Your task to perform on an android device: clear history in the chrome app Image 0: 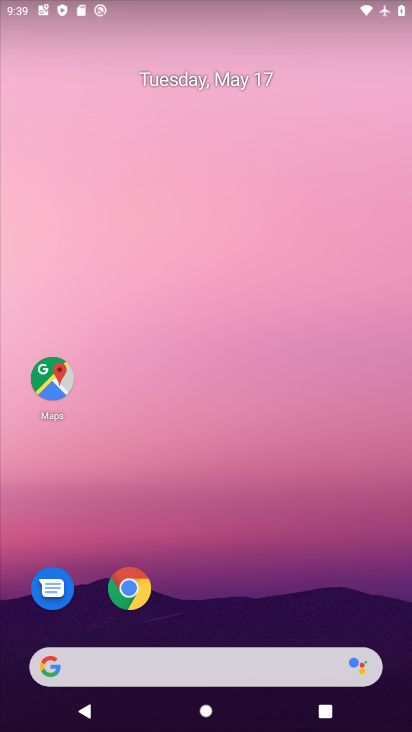
Step 0: click (172, 9)
Your task to perform on an android device: clear history in the chrome app Image 1: 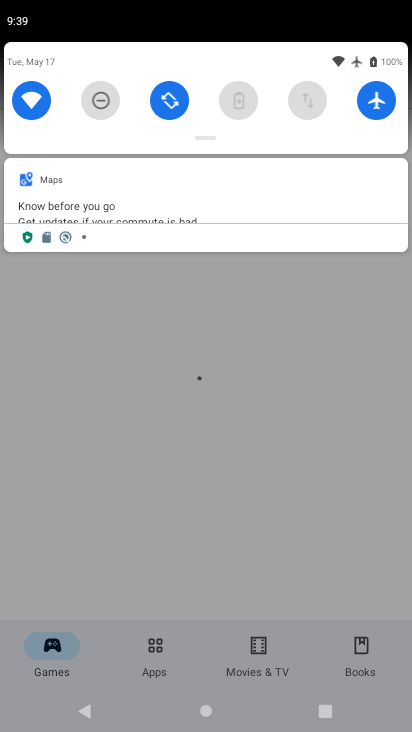
Step 1: press home button
Your task to perform on an android device: clear history in the chrome app Image 2: 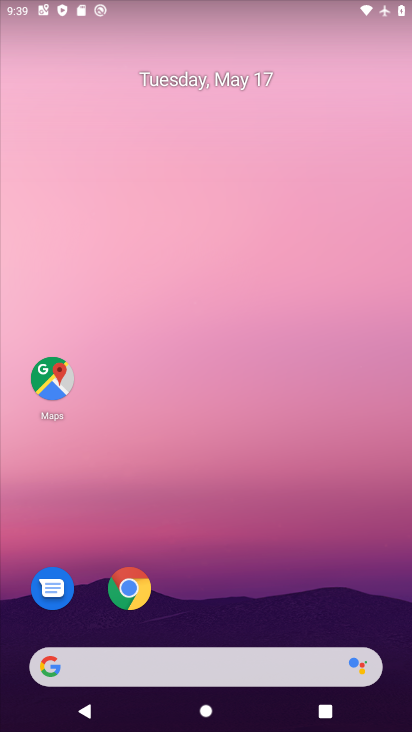
Step 2: click (132, 598)
Your task to perform on an android device: clear history in the chrome app Image 3: 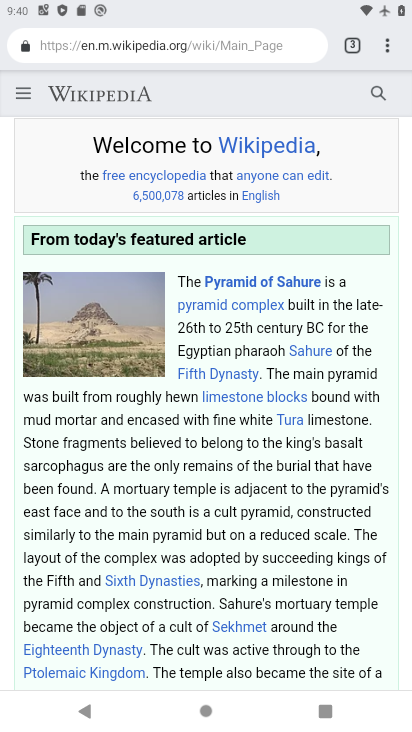
Step 3: click (392, 48)
Your task to perform on an android device: clear history in the chrome app Image 4: 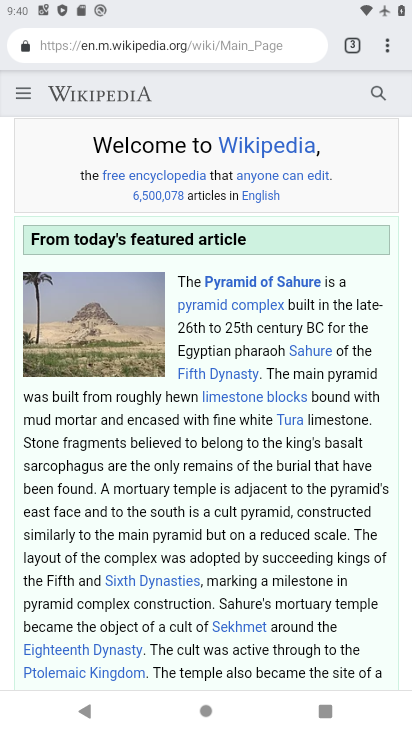
Step 4: drag from (391, 48) to (215, 259)
Your task to perform on an android device: clear history in the chrome app Image 5: 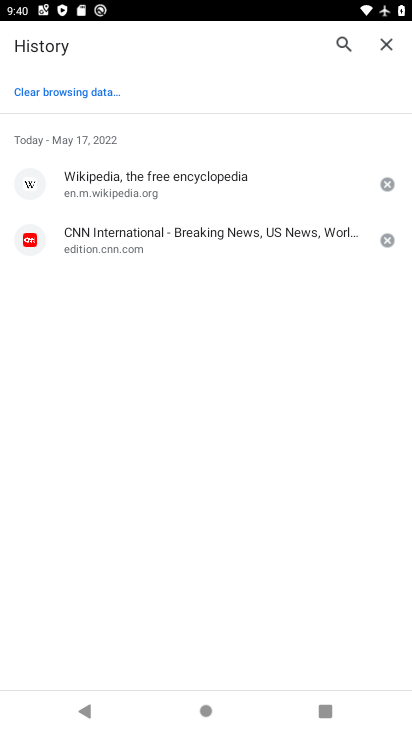
Step 5: click (49, 98)
Your task to perform on an android device: clear history in the chrome app Image 6: 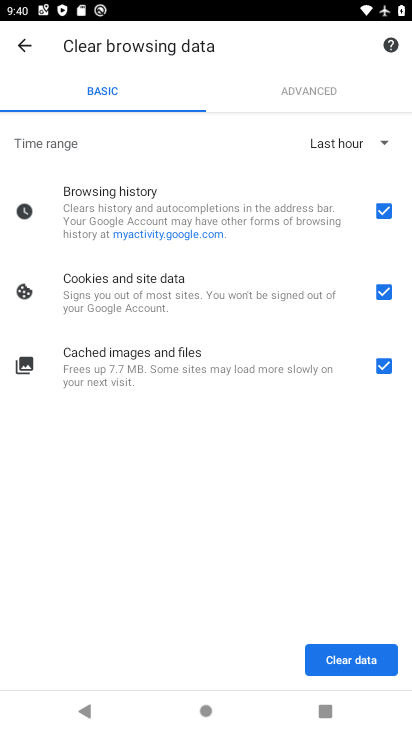
Step 6: click (351, 647)
Your task to perform on an android device: clear history in the chrome app Image 7: 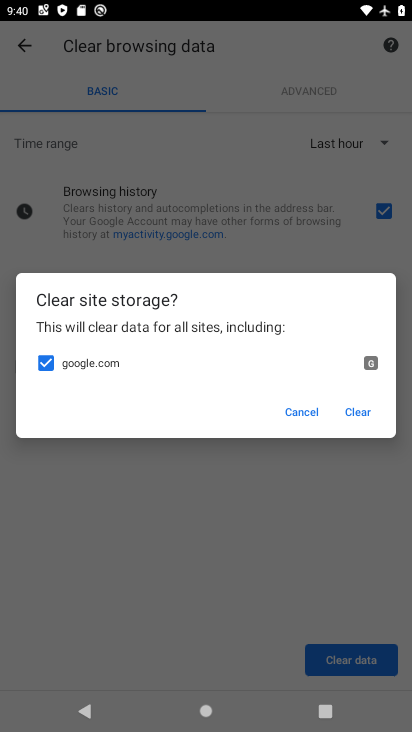
Step 7: click (361, 412)
Your task to perform on an android device: clear history in the chrome app Image 8: 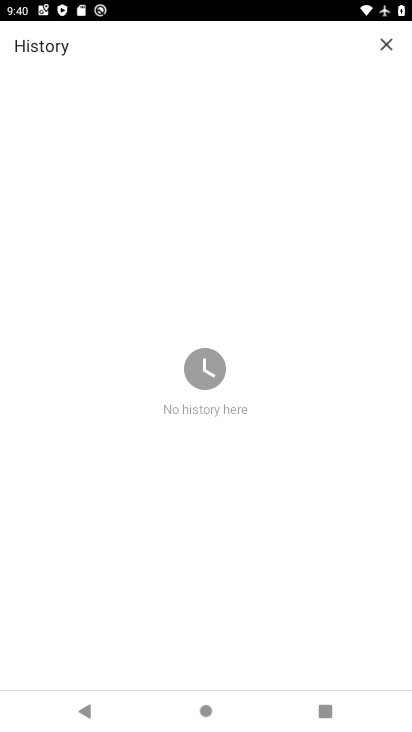
Step 8: task complete